Your task to perform on an android device: toggle pop-ups in chrome Image 0: 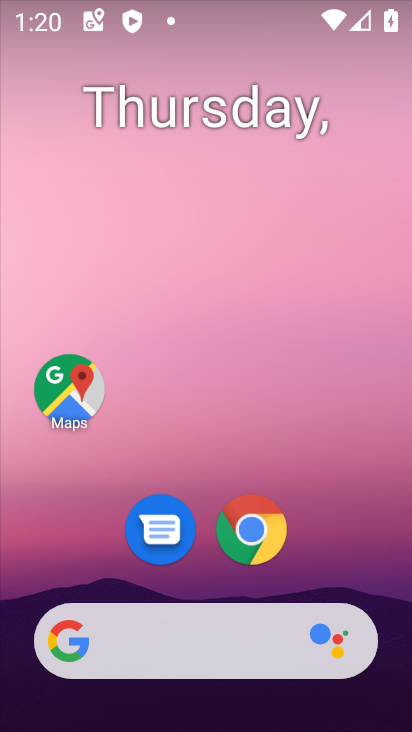
Step 0: drag from (352, 562) to (353, 140)
Your task to perform on an android device: toggle pop-ups in chrome Image 1: 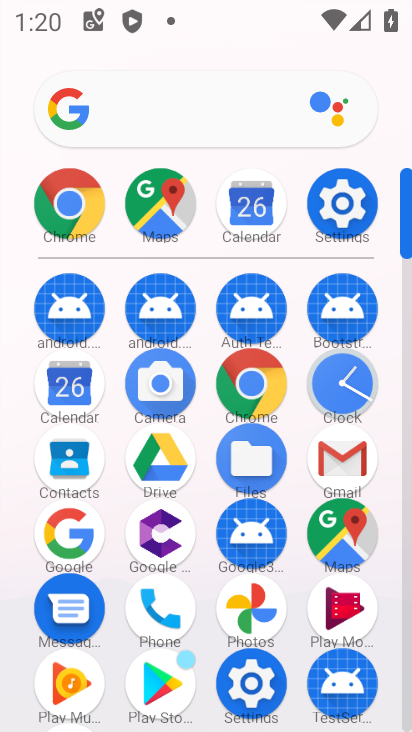
Step 1: click (77, 230)
Your task to perform on an android device: toggle pop-ups in chrome Image 2: 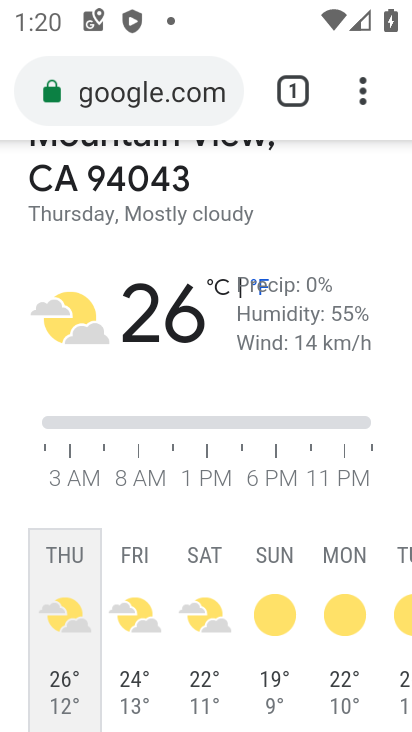
Step 2: click (369, 94)
Your task to perform on an android device: toggle pop-ups in chrome Image 3: 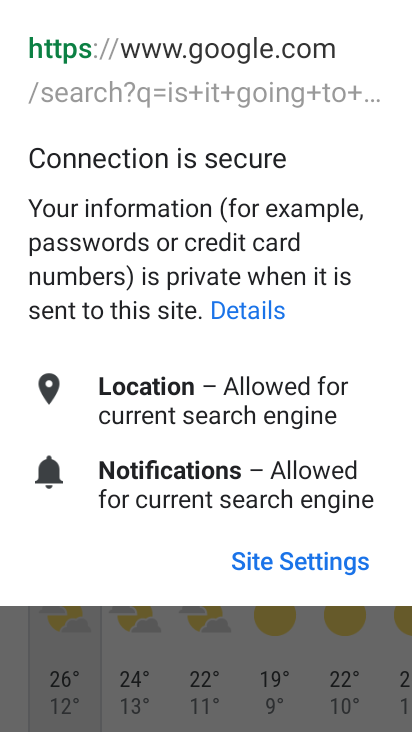
Step 3: press back button
Your task to perform on an android device: toggle pop-ups in chrome Image 4: 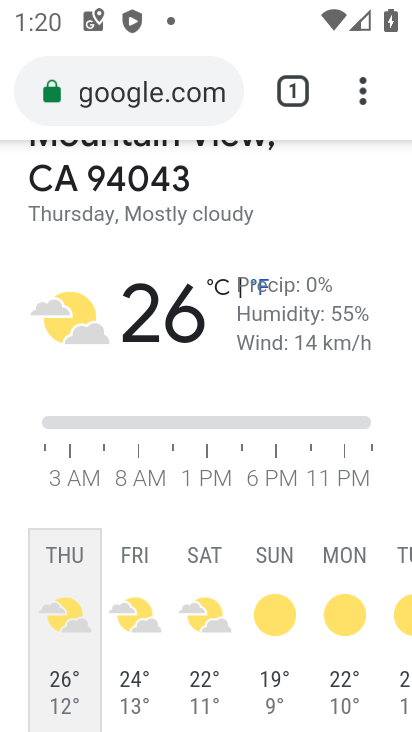
Step 4: drag from (382, 109) to (224, 569)
Your task to perform on an android device: toggle pop-ups in chrome Image 5: 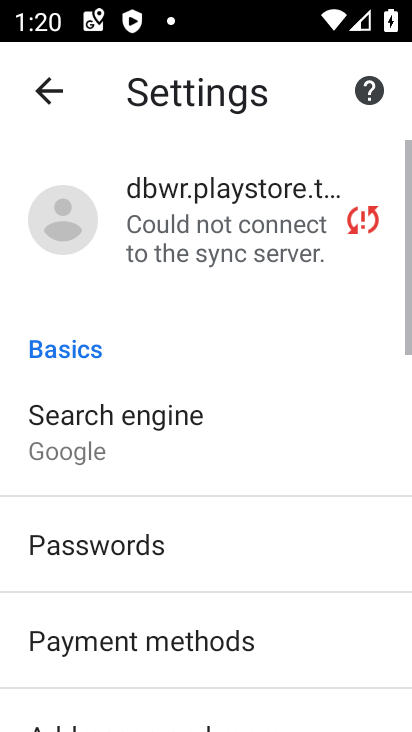
Step 5: drag from (345, 679) to (278, 268)
Your task to perform on an android device: toggle pop-ups in chrome Image 6: 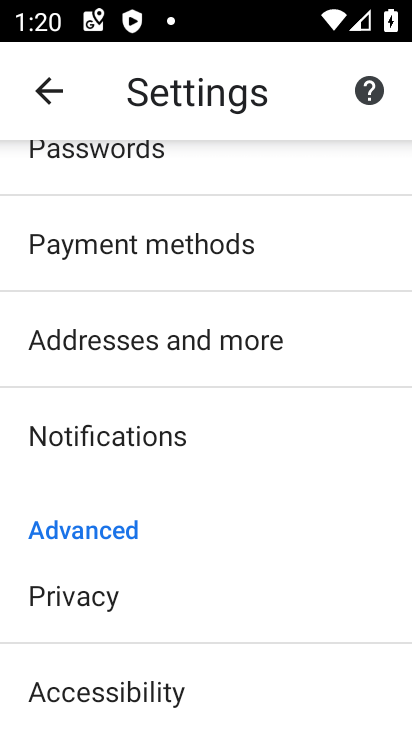
Step 6: drag from (307, 677) to (328, 296)
Your task to perform on an android device: toggle pop-ups in chrome Image 7: 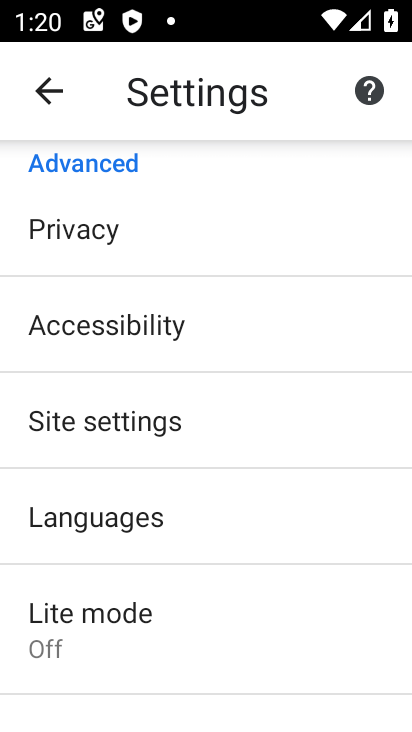
Step 7: drag from (295, 629) to (337, 353)
Your task to perform on an android device: toggle pop-ups in chrome Image 8: 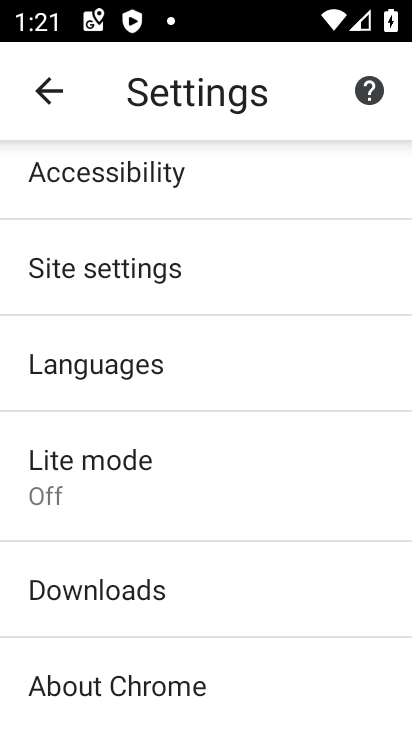
Step 8: click (257, 284)
Your task to perform on an android device: toggle pop-ups in chrome Image 9: 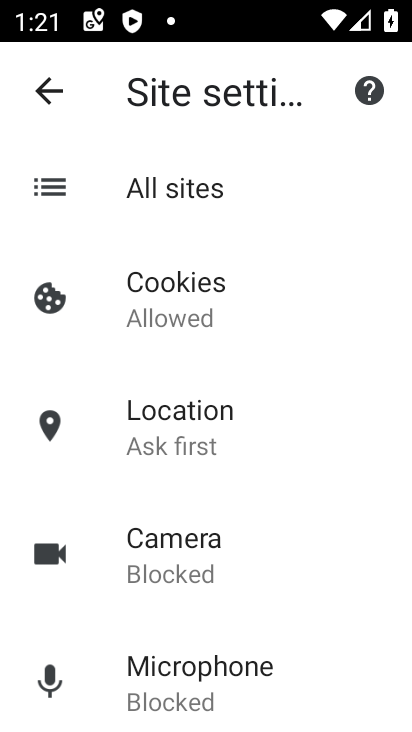
Step 9: click (254, 193)
Your task to perform on an android device: toggle pop-ups in chrome Image 10: 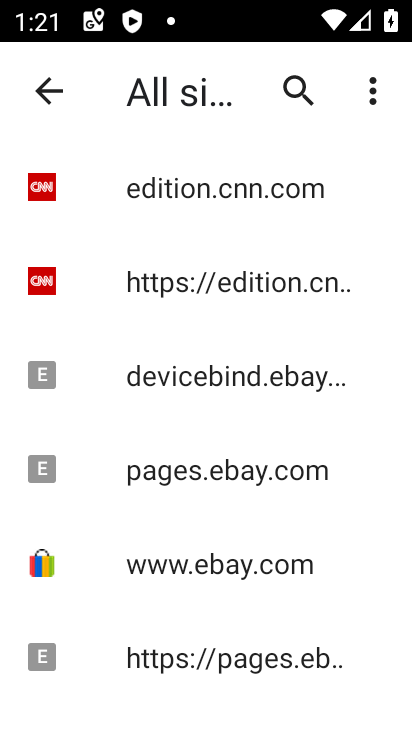
Step 10: click (56, 108)
Your task to perform on an android device: toggle pop-ups in chrome Image 11: 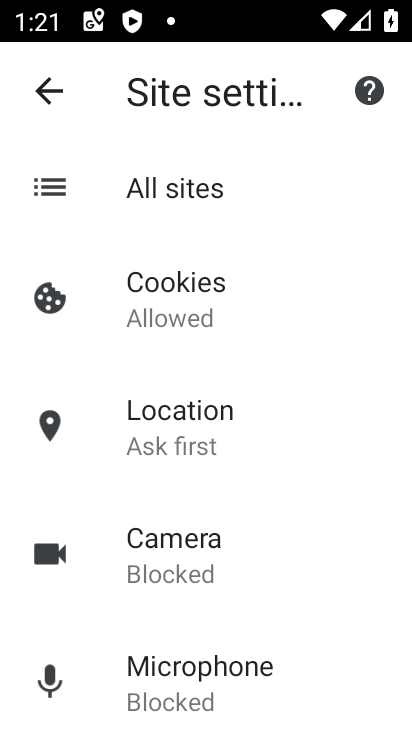
Step 11: drag from (239, 601) to (234, 250)
Your task to perform on an android device: toggle pop-ups in chrome Image 12: 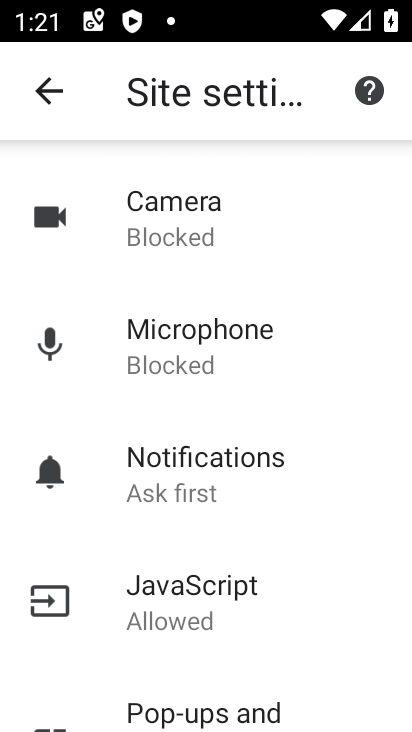
Step 12: drag from (278, 613) to (293, 368)
Your task to perform on an android device: toggle pop-ups in chrome Image 13: 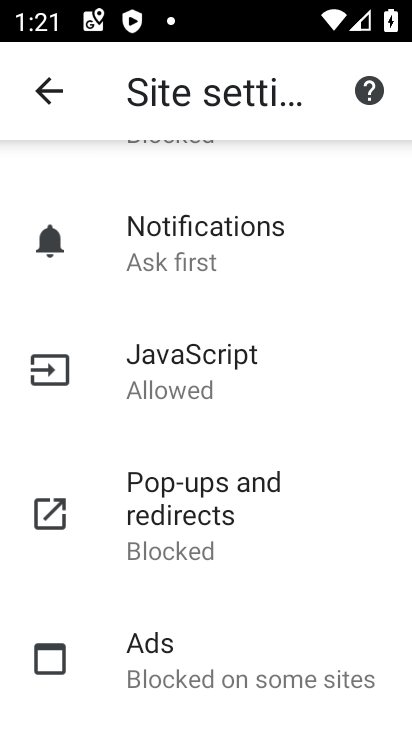
Step 13: click (285, 502)
Your task to perform on an android device: toggle pop-ups in chrome Image 14: 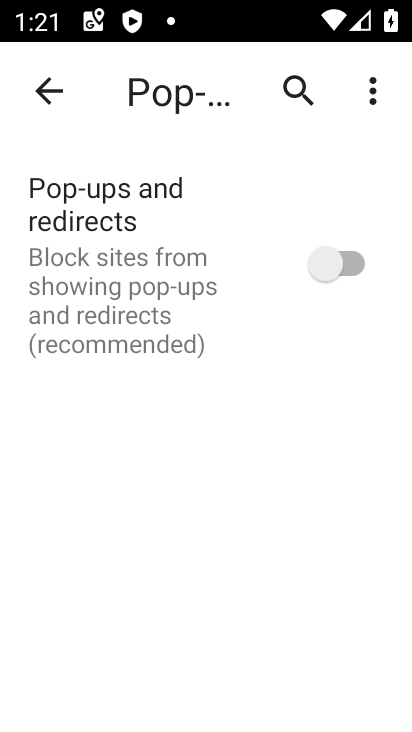
Step 14: click (360, 264)
Your task to perform on an android device: toggle pop-ups in chrome Image 15: 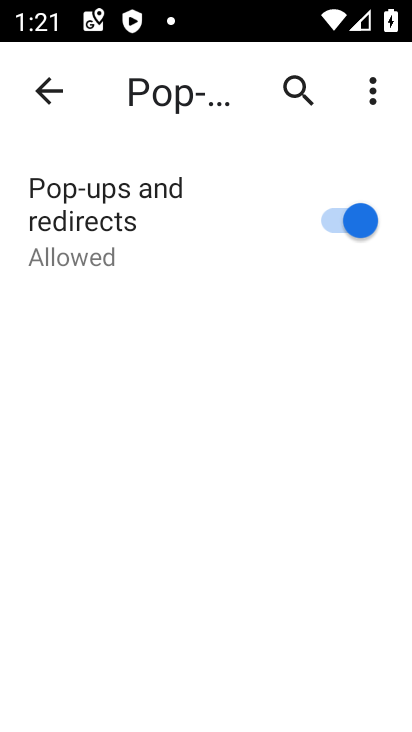
Step 15: task complete